Your task to perform on an android device: open app "Walmart Shopping & Grocery" (install if not already installed) and enter user name: "Hans@icloud.com" and password: "executing" Image 0: 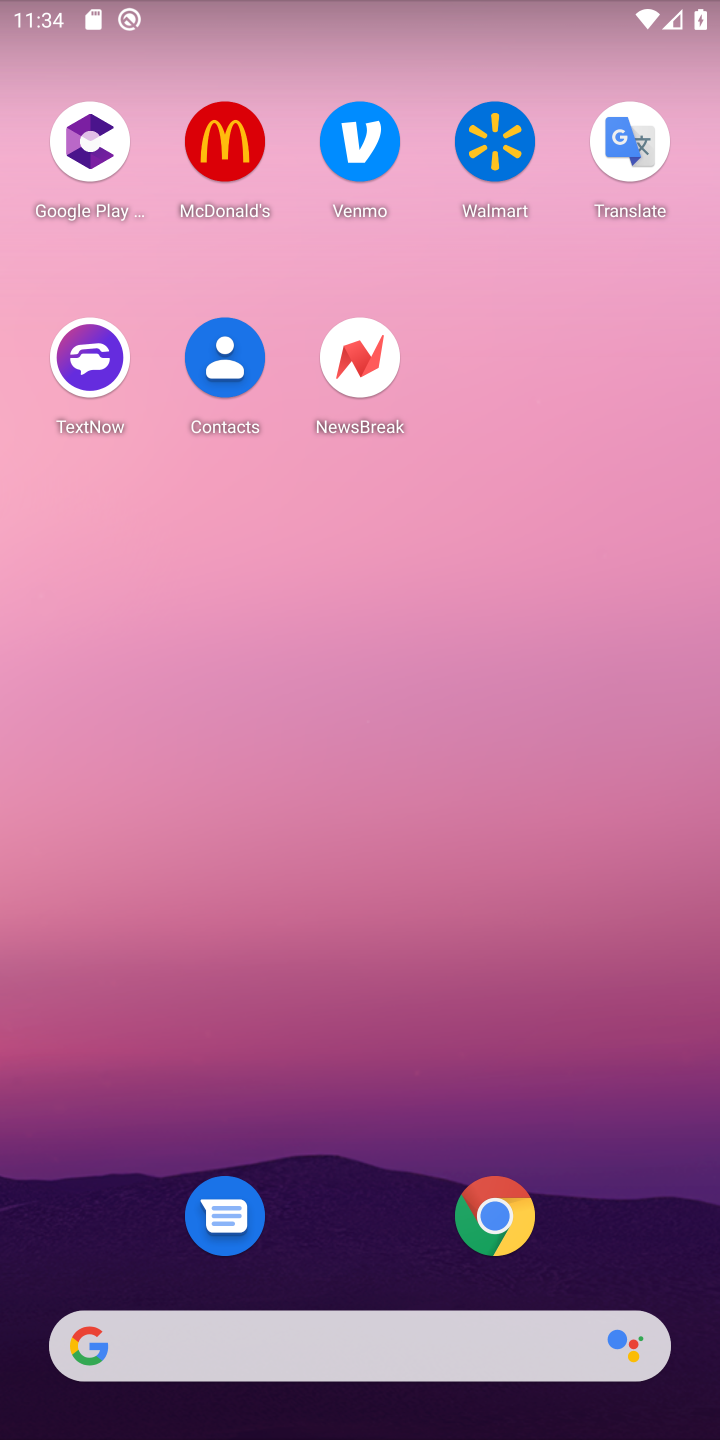
Step 0: drag from (424, 1081) to (393, 231)
Your task to perform on an android device: open app "Walmart Shopping & Grocery" (install if not already installed) and enter user name: "Hans@icloud.com" and password: "executing" Image 1: 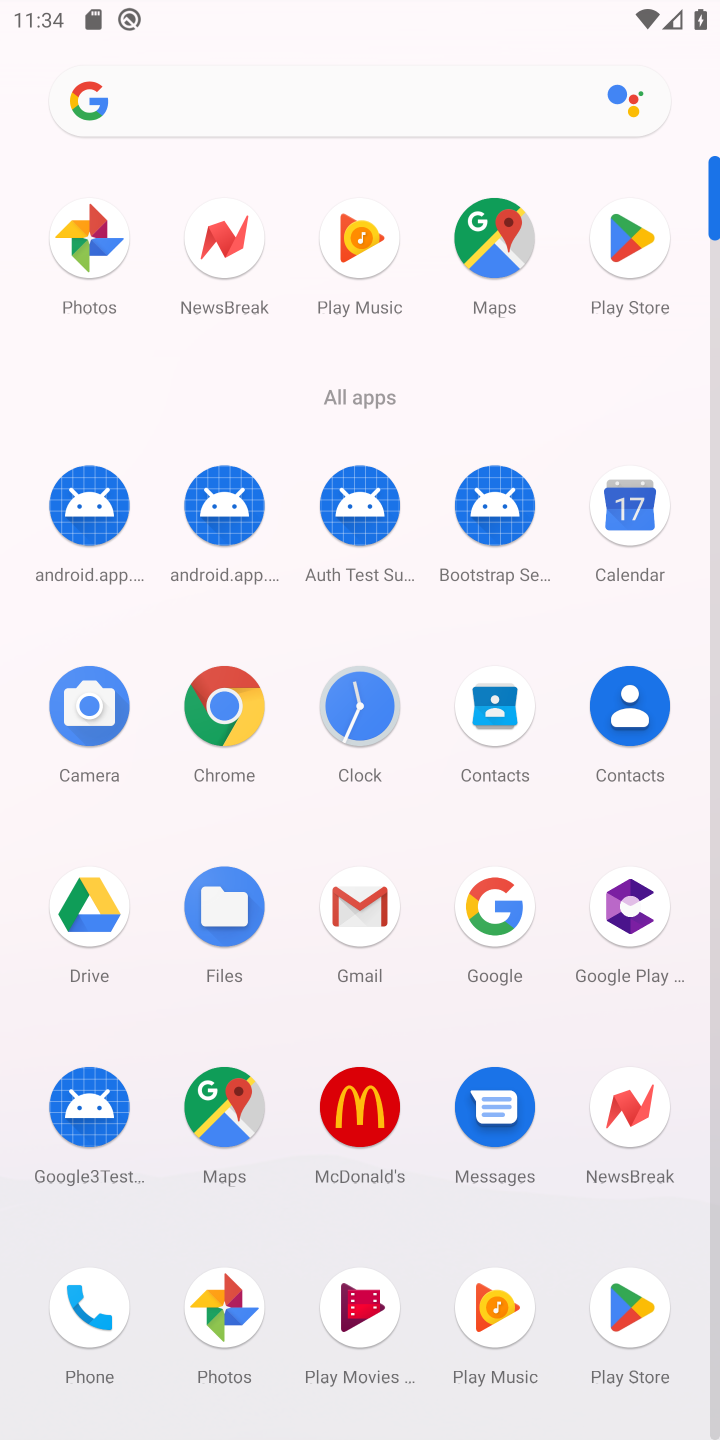
Step 1: click (621, 1324)
Your task to perform on an android device: open app "Walmart Shopping & Grocery" (install if not already installed) and enter user name: "Hans@icloud.com" and password: "executing" Image 2: 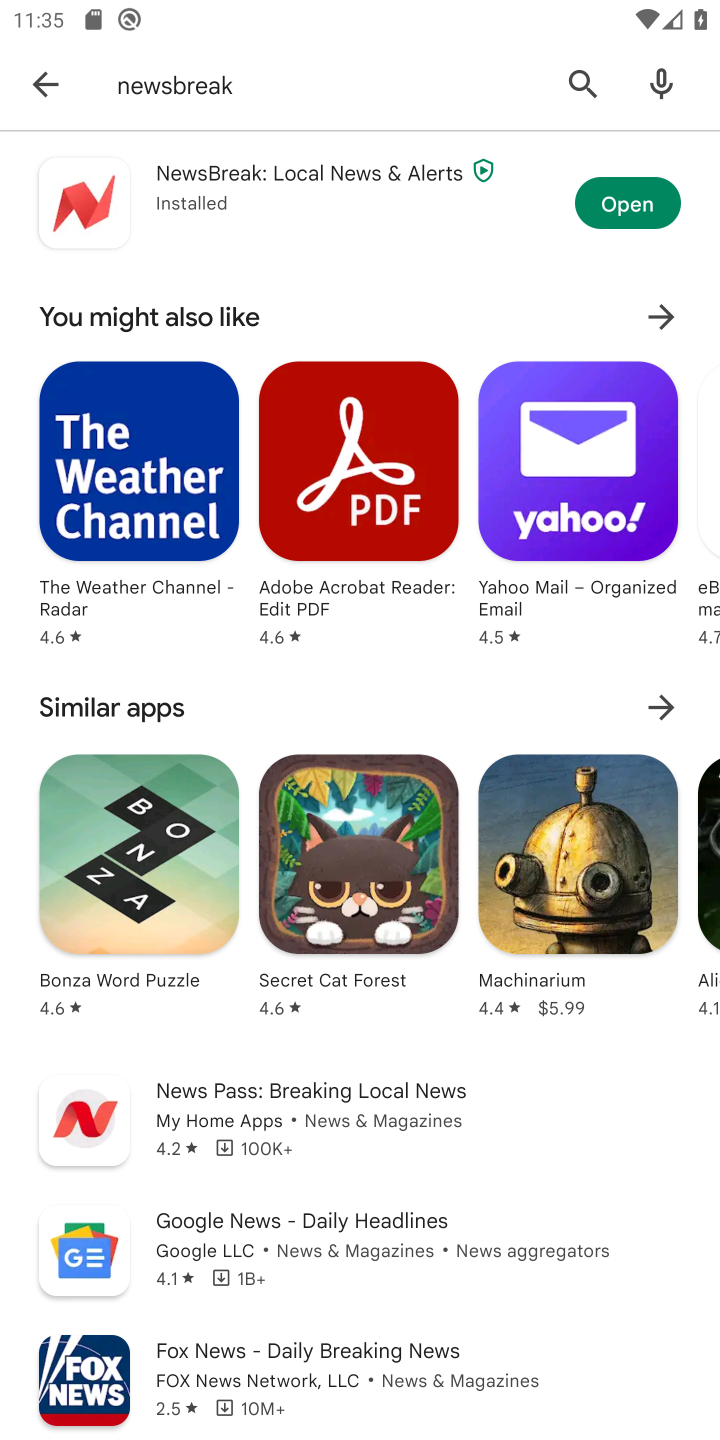
Step 2: click (603, 1158)
Your task to perform on an android device: open app "Walmart Shopping & Grocery" (install if not already installed) and enter user name: "Hans@icloud.com" and password: "executing" Image 3: 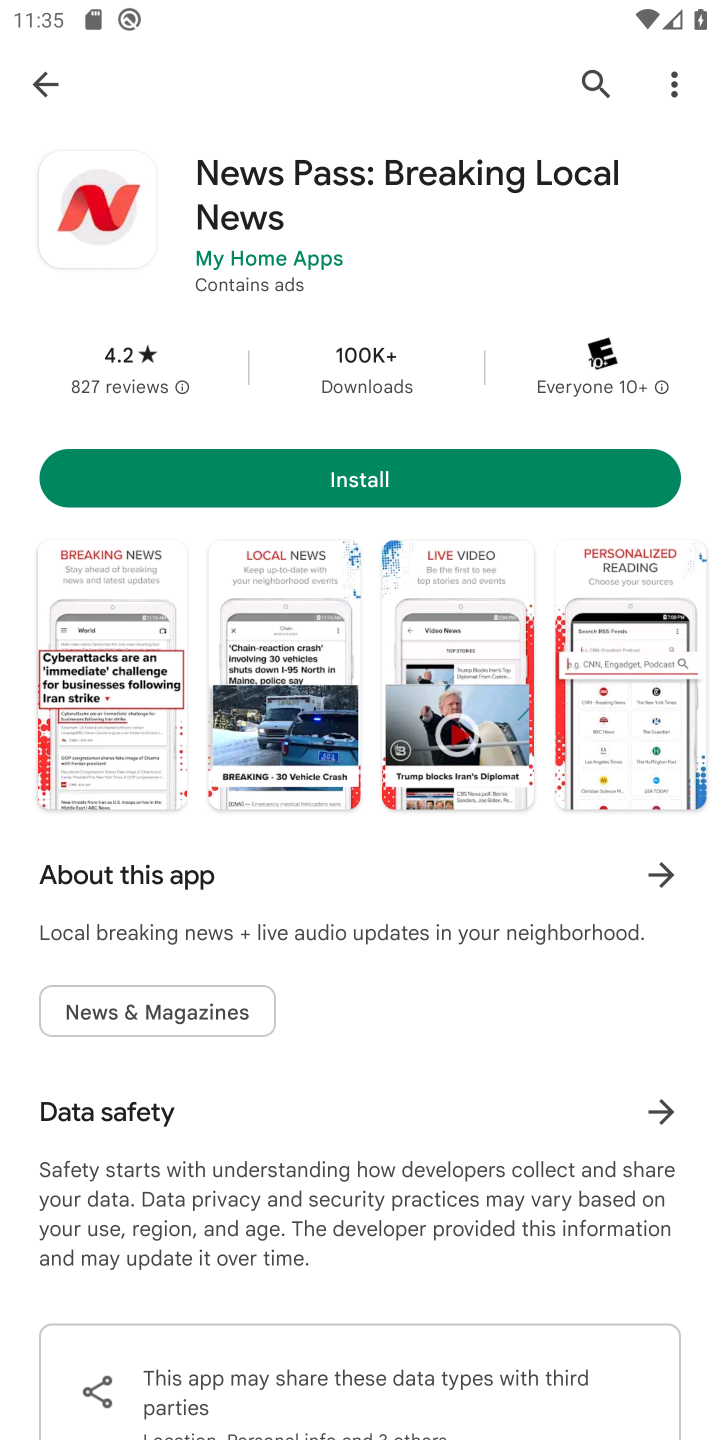
Step 3: click (597, 75)
Your task to perform on an android device: open app "Walmart Shopping & Grocery" (install if not already installed) and enter user name: "Hans@icloud.com" and password: "executing" Image 4: 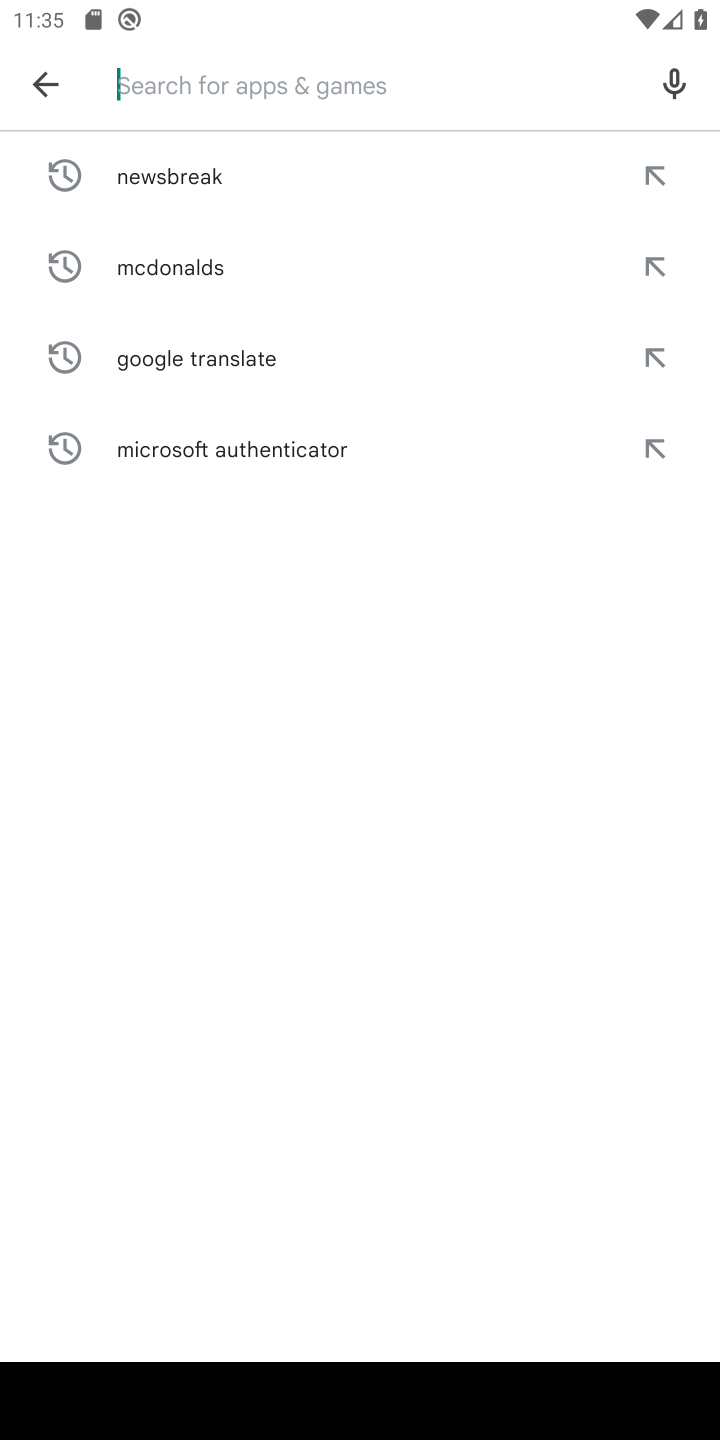
Step 4: type "walmart shopping & grocery"
Your task to perform on an android device: open app "Walmart Shopping & Grocery" (install if not already installed) and enter user name: "Hans@icloud.com" and password: "executing" Image 5: 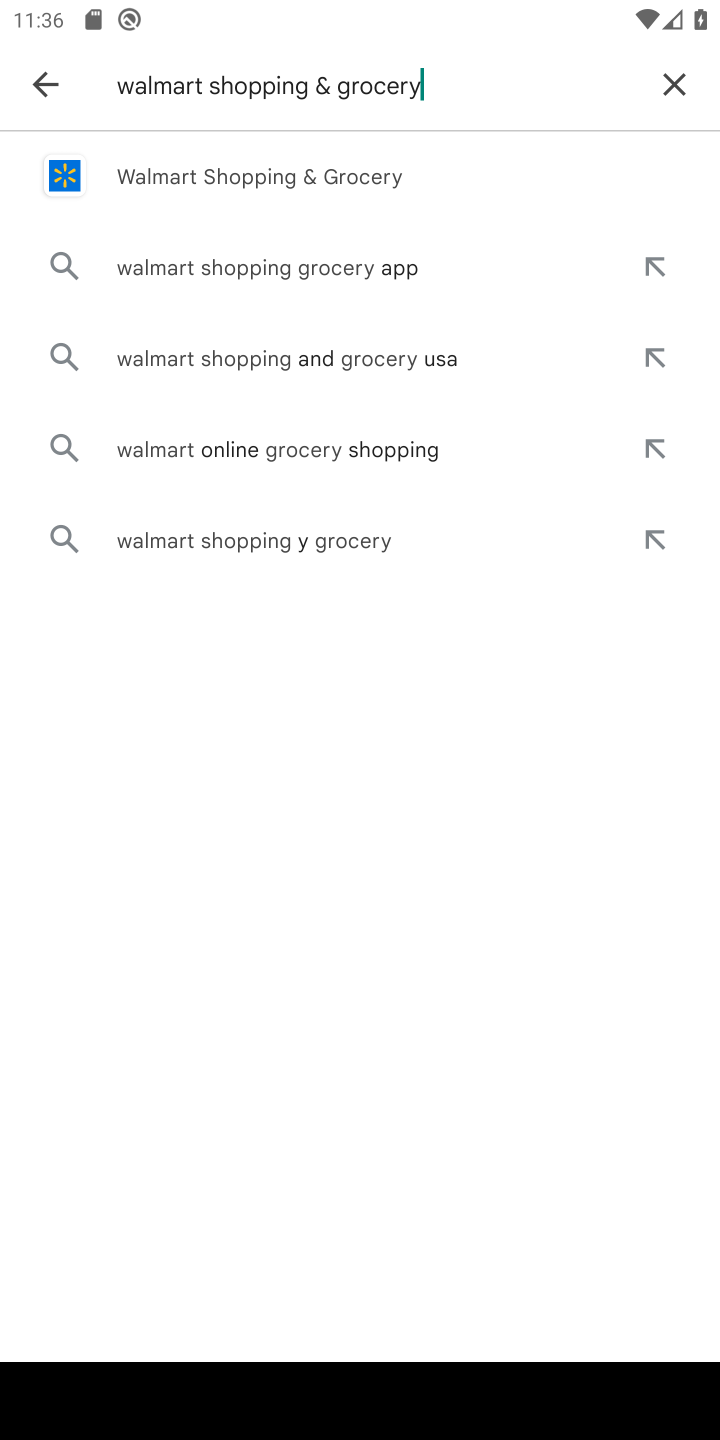
Step 5: click (361, 162)
Your task to perform on an android device: open app "Walmart Shopping & Grocery" (install if not already installed) and enter user name: "Hans@icloud.com" and password: "executing" Image 6: 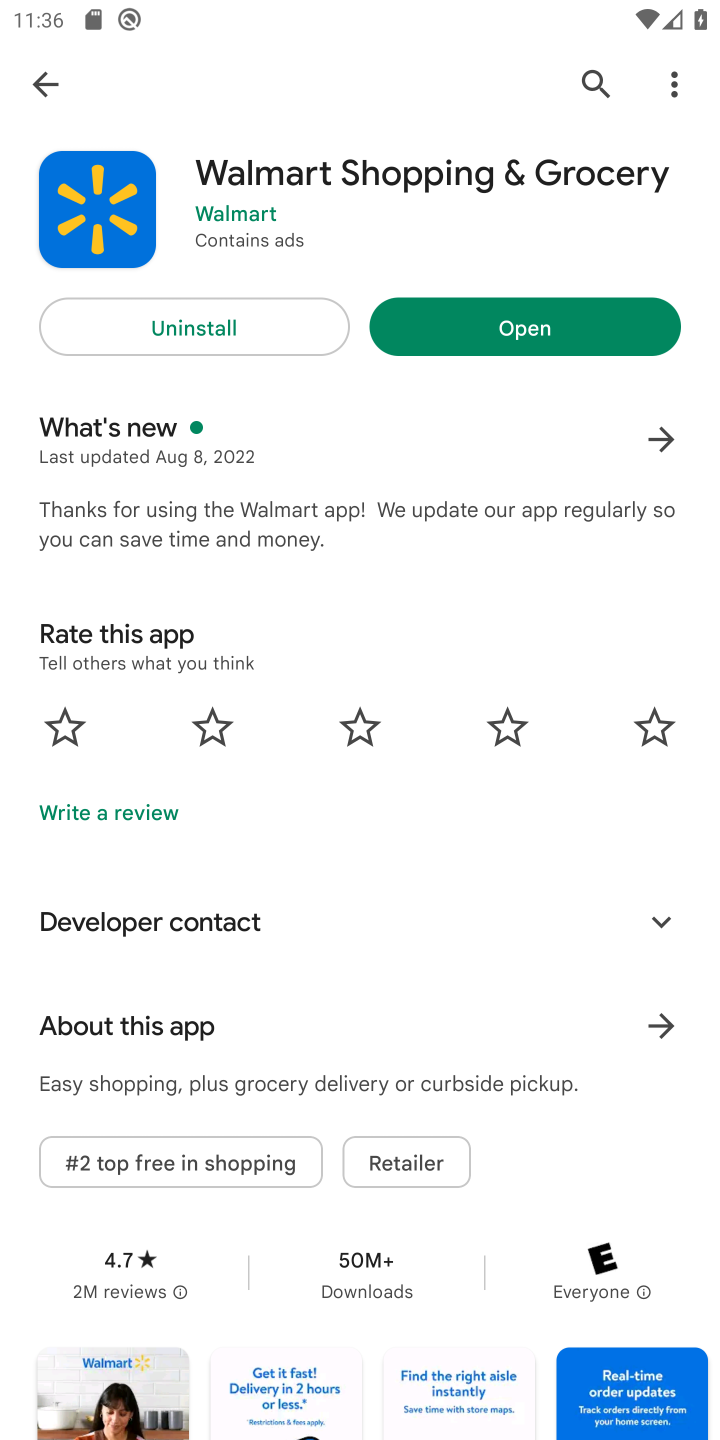
Step 6: click (536, 338)
Your task to perform on an android device: open app "Walmart Shopping & Grocery" (install if not already installed) and enter user name: "Hans@icloud.com" and password: "executing" Image 7: 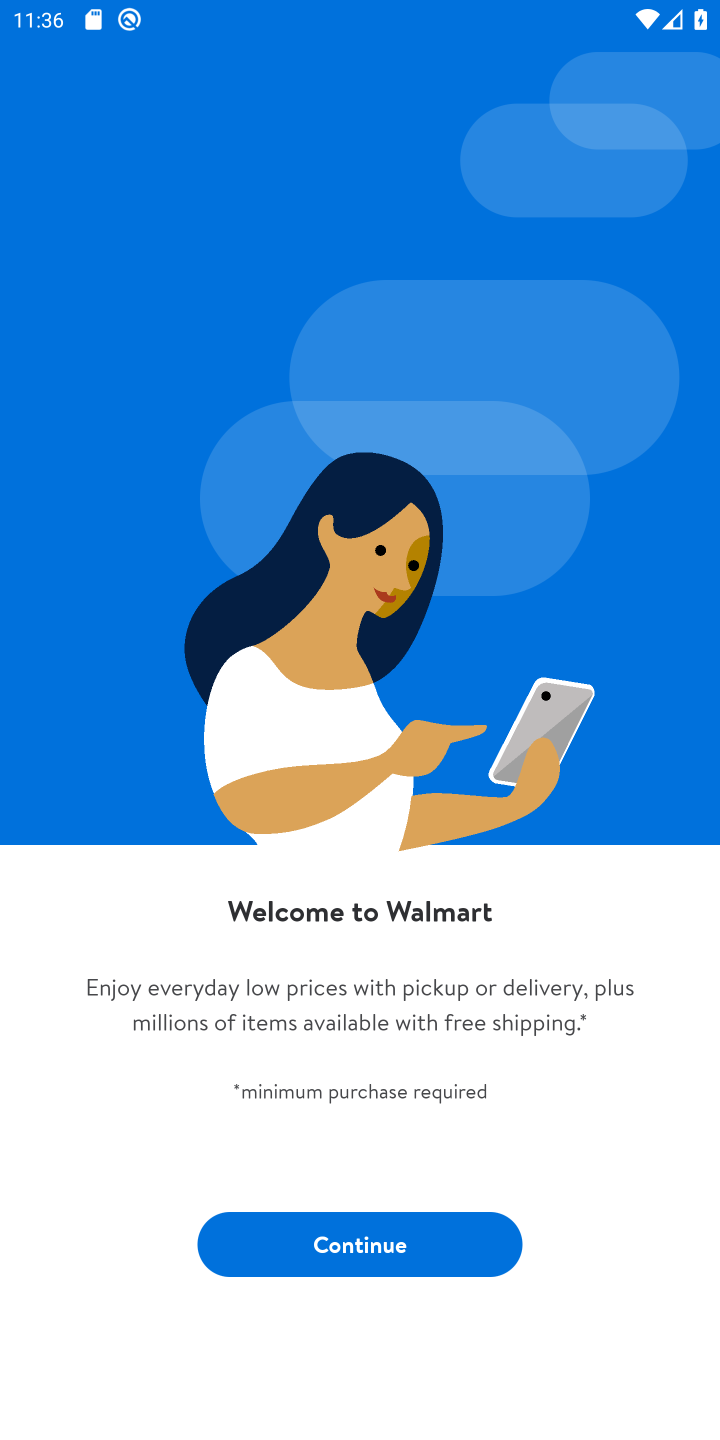
Step 7: click (322, 1254)
Your task to perform on an android device: open app "Walmart Shopping & Grocery" (install if not already installed) and enter user name: "Hans@icloud.com" and password: "executing" Image 8: 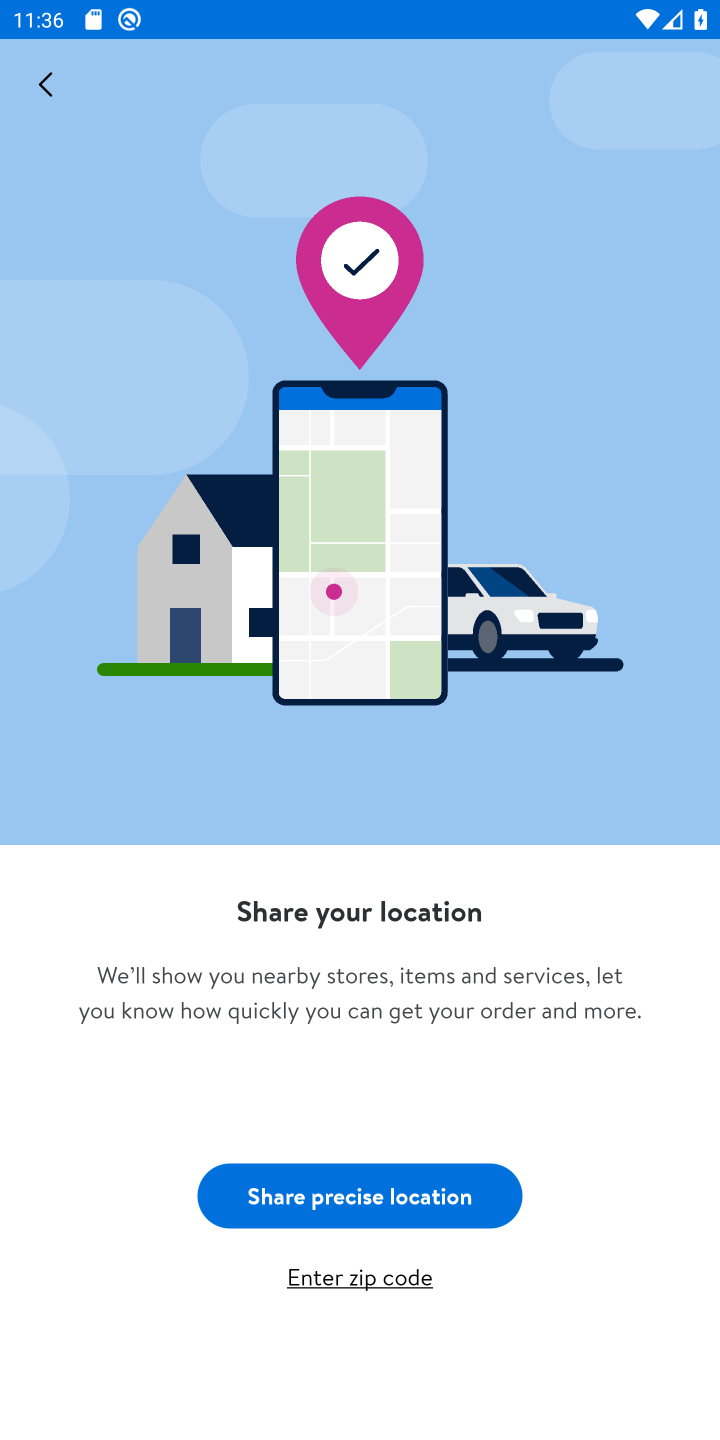
Step 8: click (377, 1207)
Your task to perform on an android device: open app "Walmart Shopping & Grocery" (install if not already installed) and enter user name: "Hans@icloud.com" and password: "executing" Image 9: 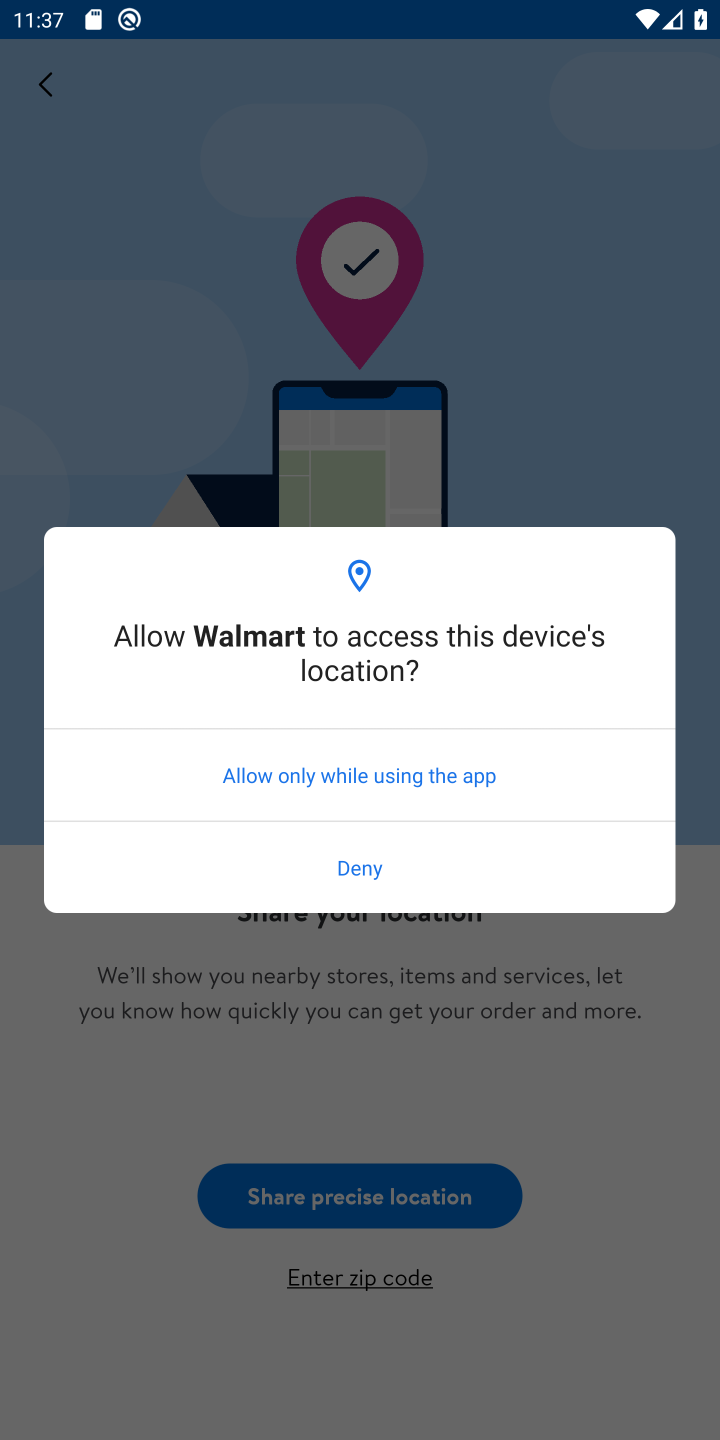
Step 9: click (363, 759)
Your task to perform on an android device: open app "Walmart Shopping & Grocery" (install if not already installed) and enter user name: "Hans@icloud.com" and password: "executing" Image 10: 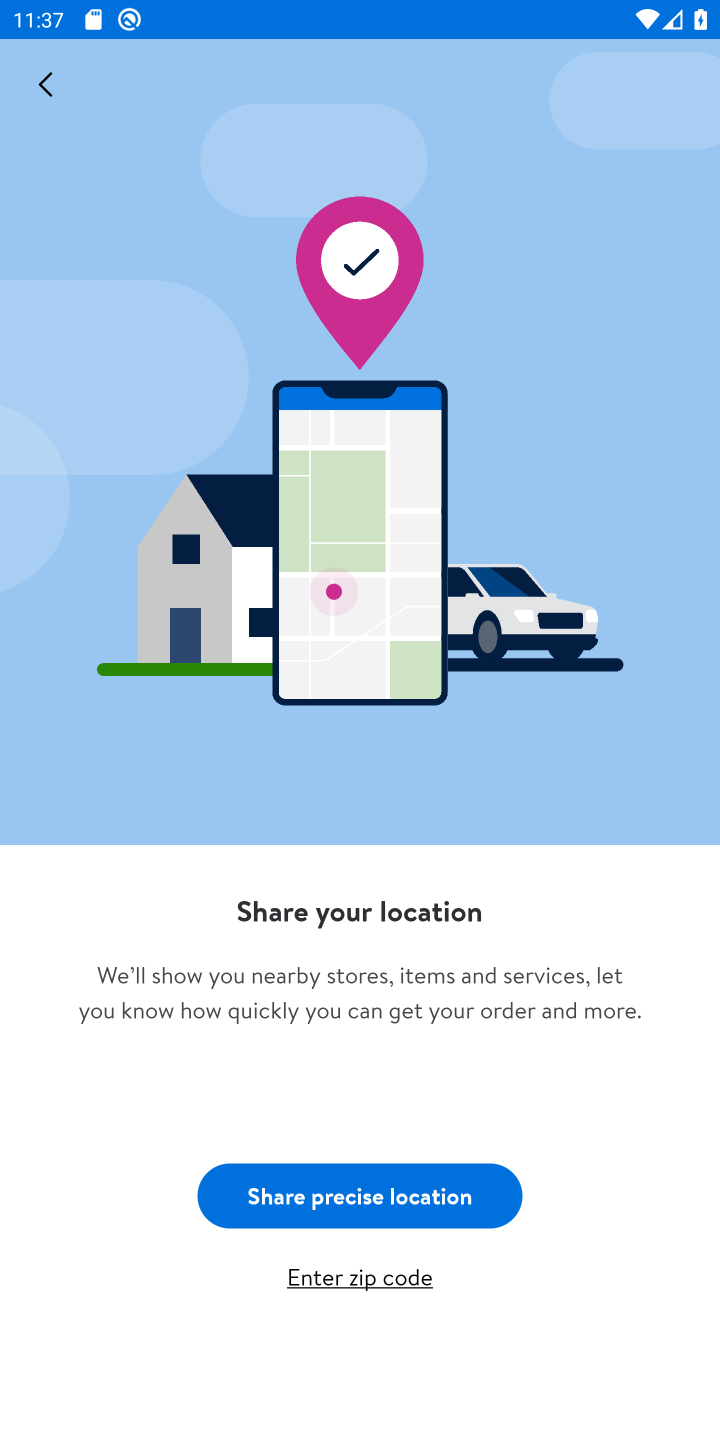
Step 10: click (446, 1188)
Your task to perform on an android device: open app "Walmart Shopping & Grocery" (install if not already installed) and enter user name: "Hans@icloud.com" and password: "executing" Image 11: 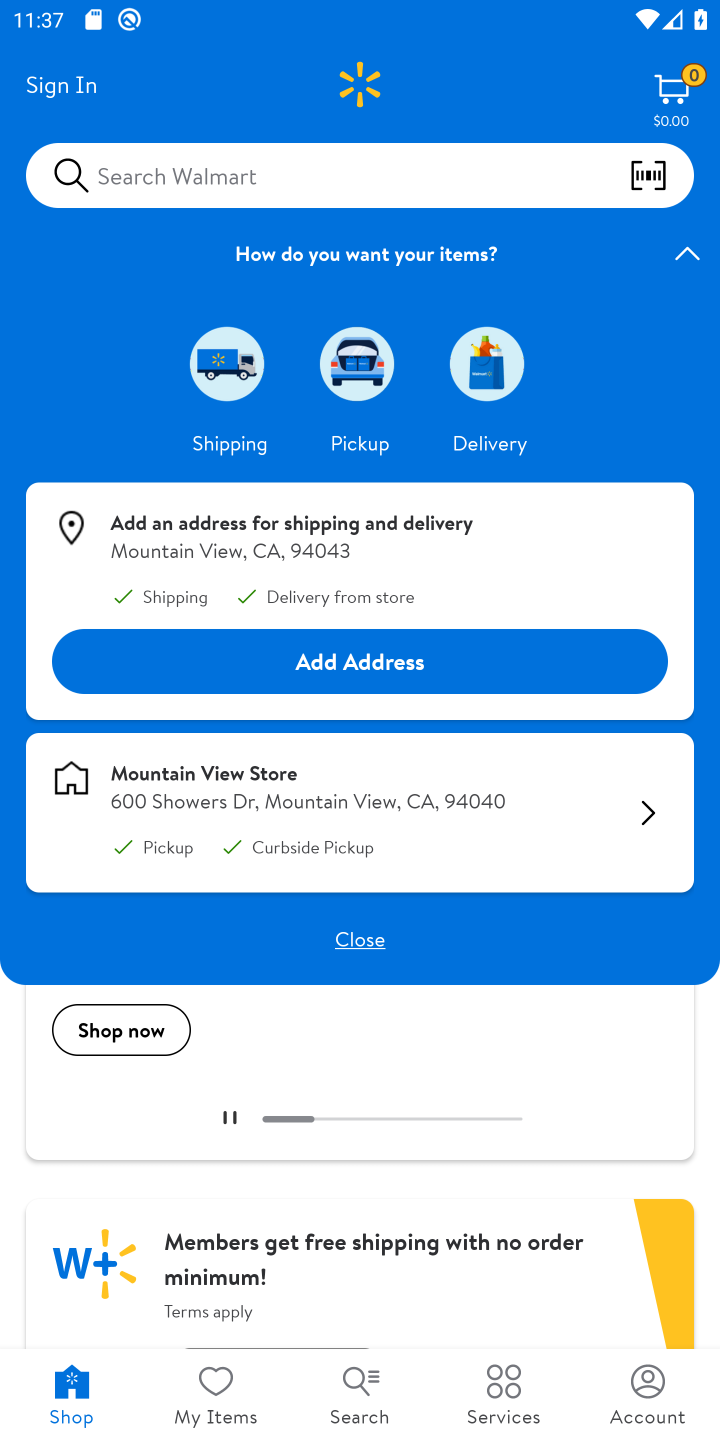
Step 11: click (84, 97)
Your task to perform on an android device: open app "Walmart Shopping & Grocery" (install if not already installed) and enter user name: "Hans@icloud.com" and password: "executing" Image 12: 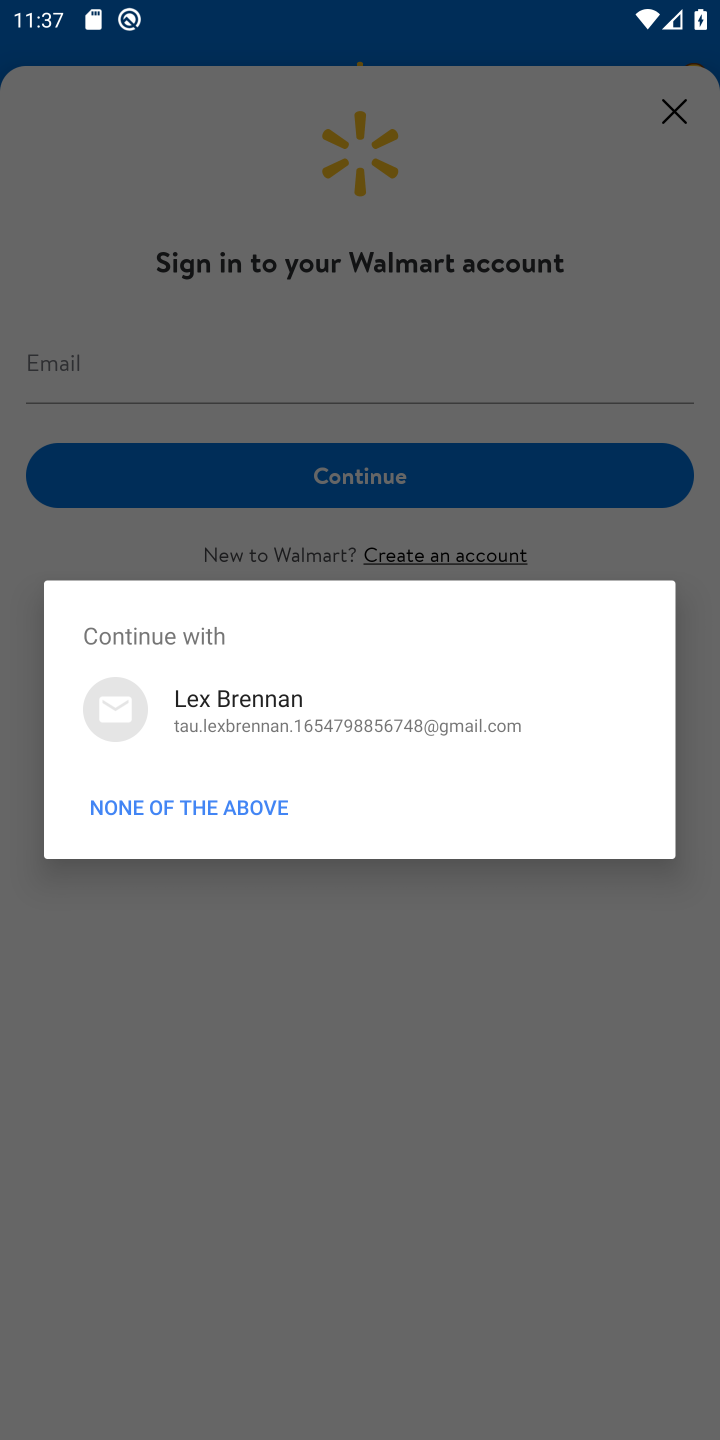
Step 12: click (424, 341)
Your task to perform on an android device: open app "Walmart Shopping & Grocery" (install if not already installed) and enter user name: "Hans@icloud.com" and password: "executing" Image 13: 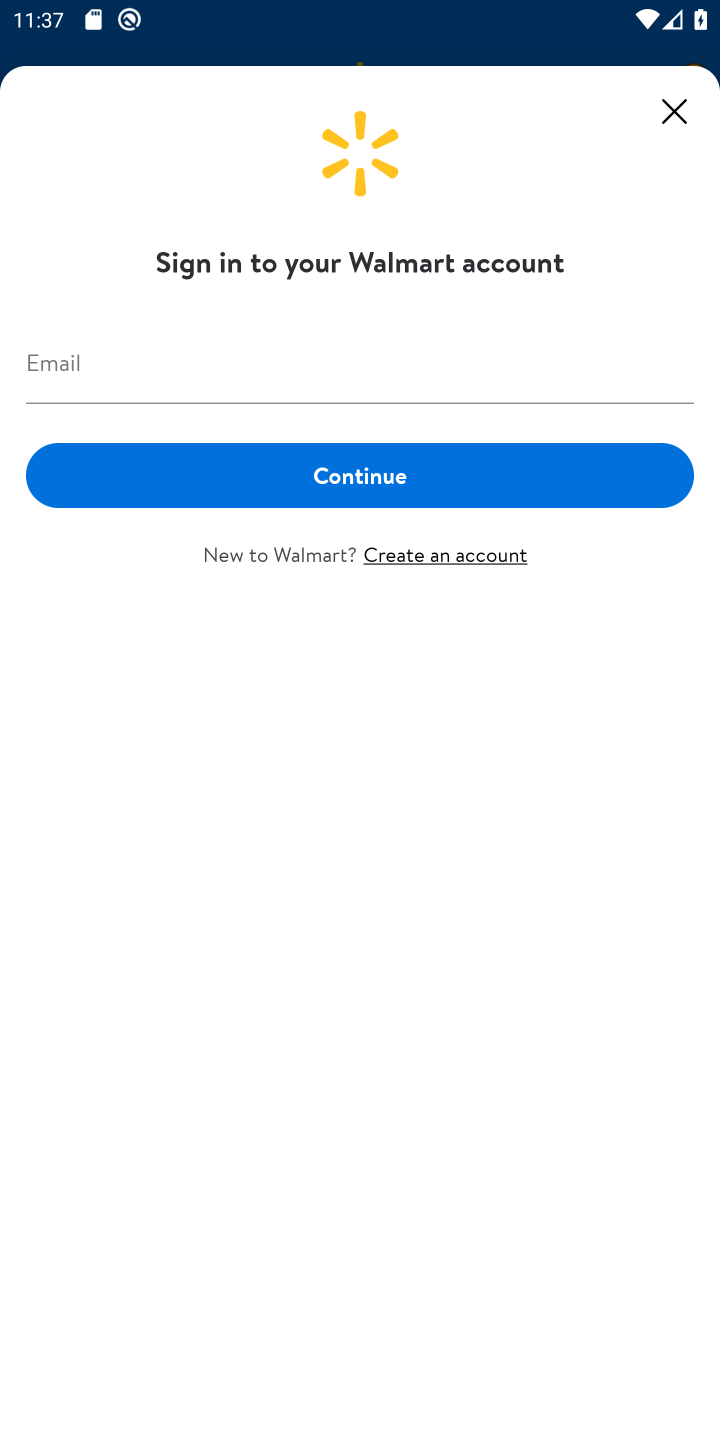
Step 13: click (413, 365)
Your task to perform on an android device: open app "Walmart Shopping & Grocery" (install if not already installed) and enter user name: "Hans@icloud.com" and password: "executing" Image 14: 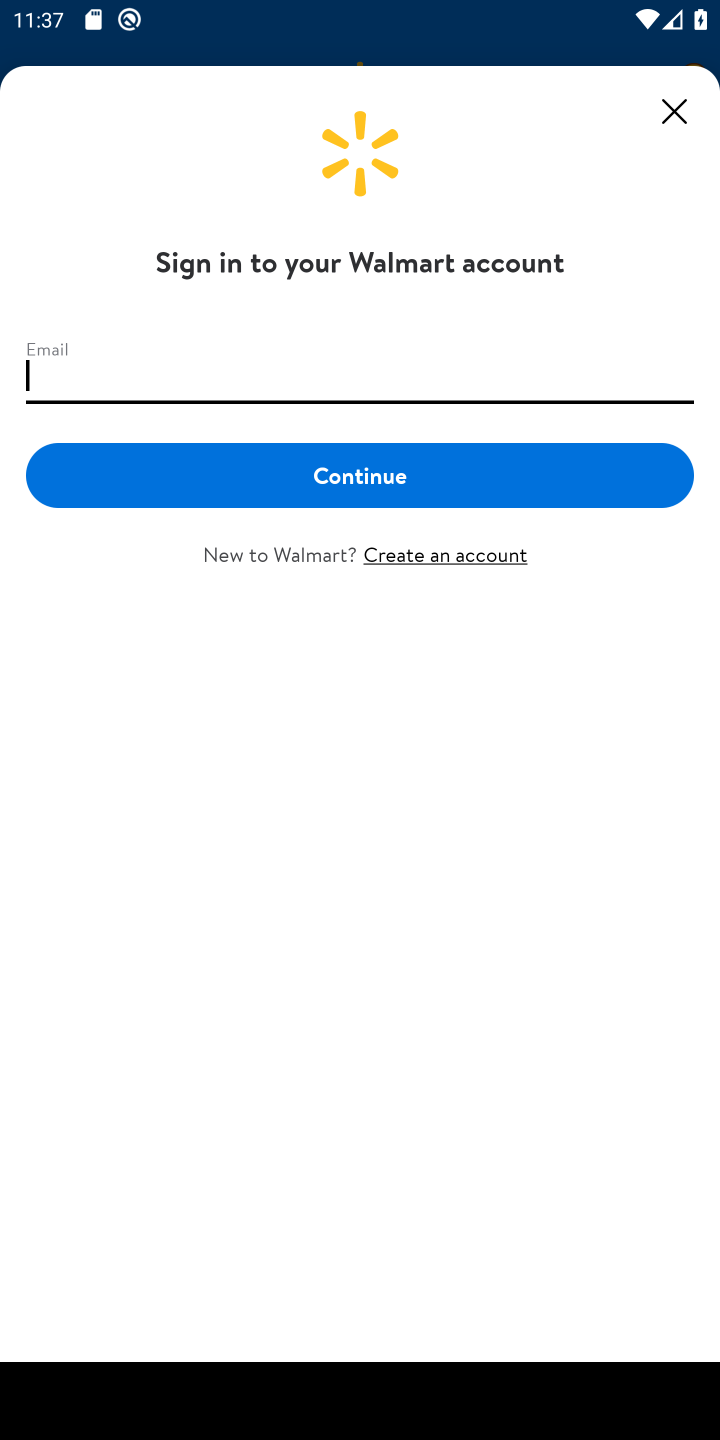
Step 14: type "hans@icloud.com"
Your task to perform on an android device: open app "Walmart Shopping & Grocery" (install if not already installed) and enter user name: "Hans@icloud.com" and password: "executing" Image 15: 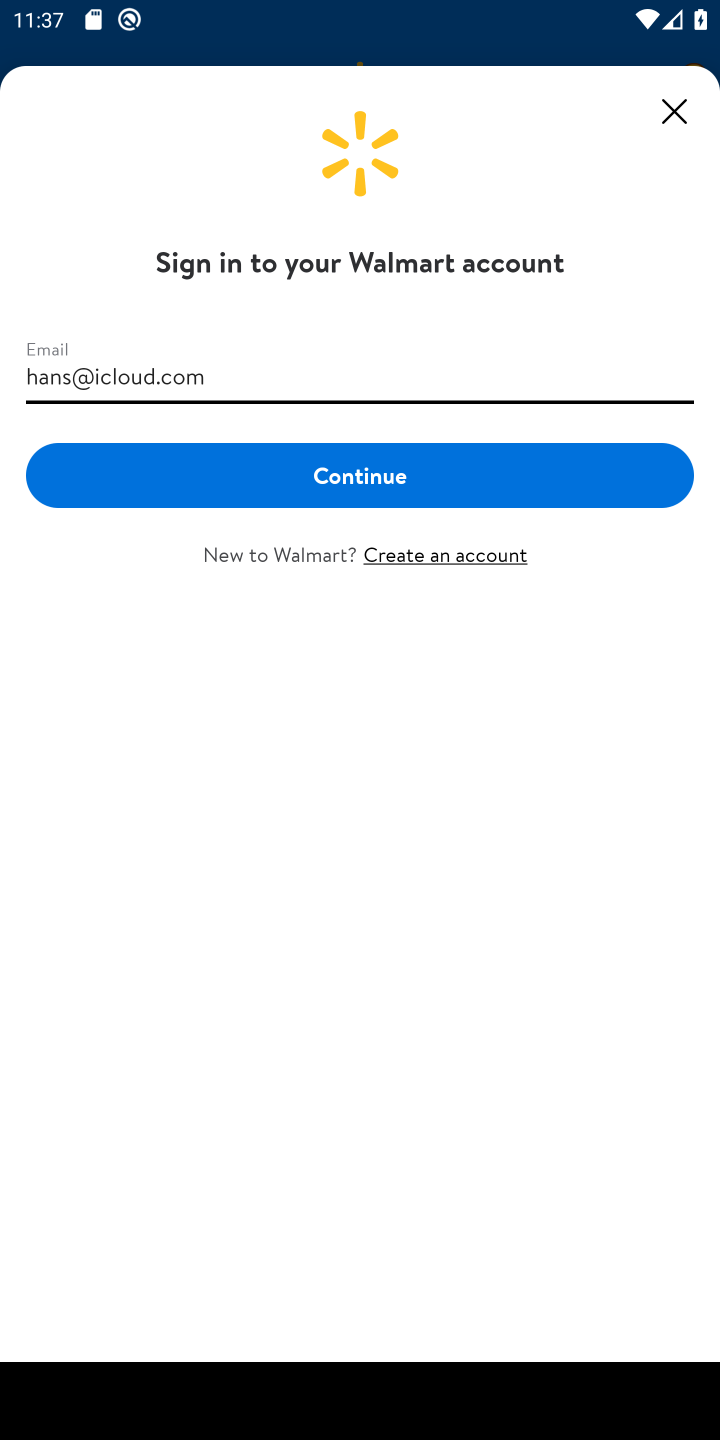
Step 15: click (353, 463)
Your task to perform on an android device: open app "Walmart Shopping & Grocery" (install if not already installed) and enter user name: "Hans@icloud.com" and password: "executing" Image 16: 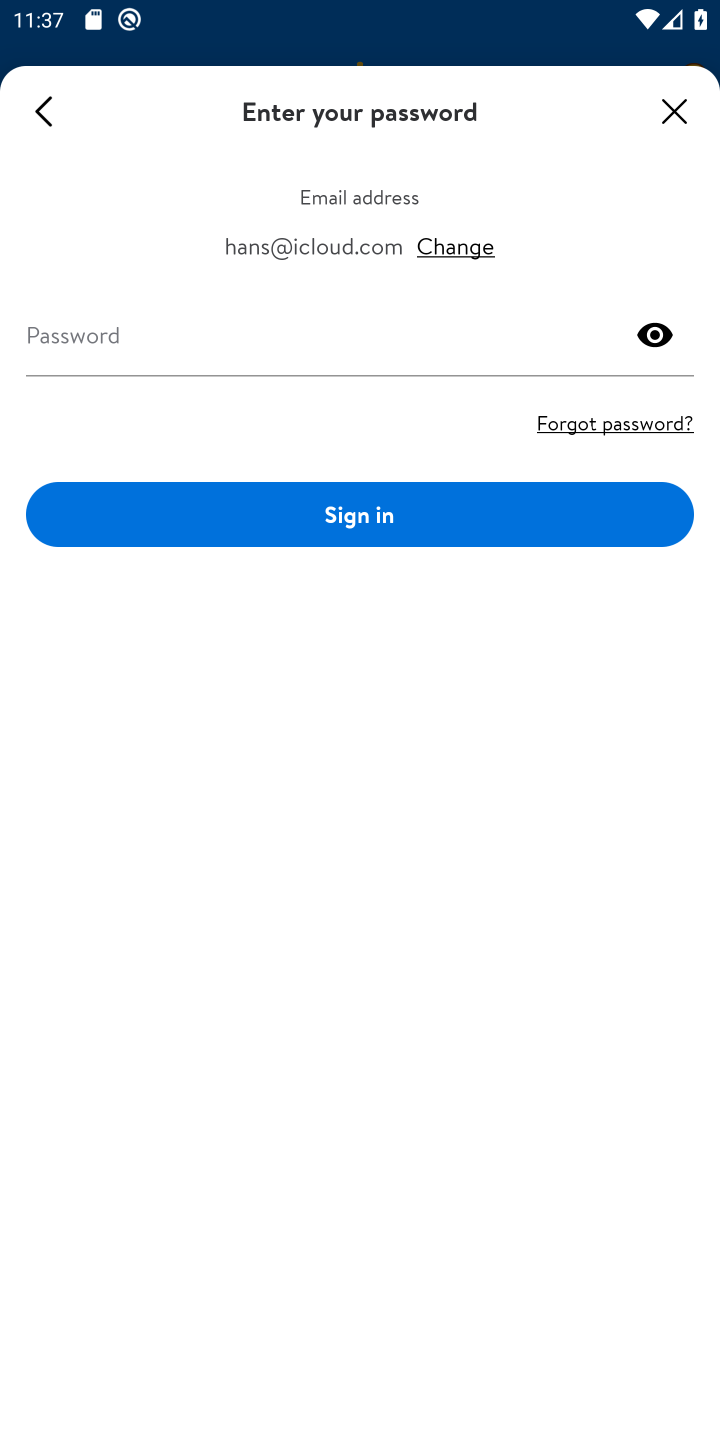
Step 16: click (389, 346)
Your task to perform on an android device: open app "Walmart Shopping & Grocery" (install if not already installed) and enter user name: "Hans@icloud.com" and password: "executing" Image 17: 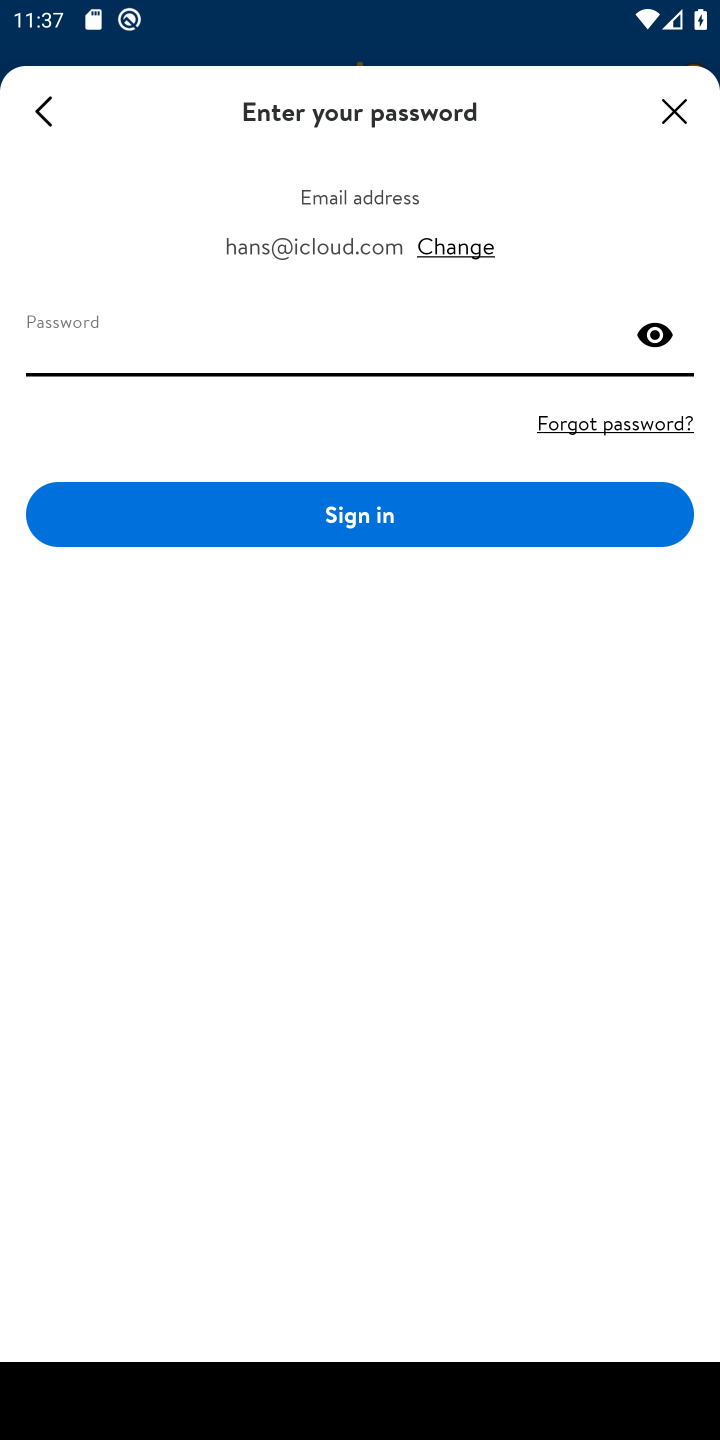
Step 17: type "executing"
Your task to perform on an android device: open app "Walmart Shopping & Grocery" (install if not already installed) and enter user name: "Hans@icloud.com" and password: "executing" Image 18: 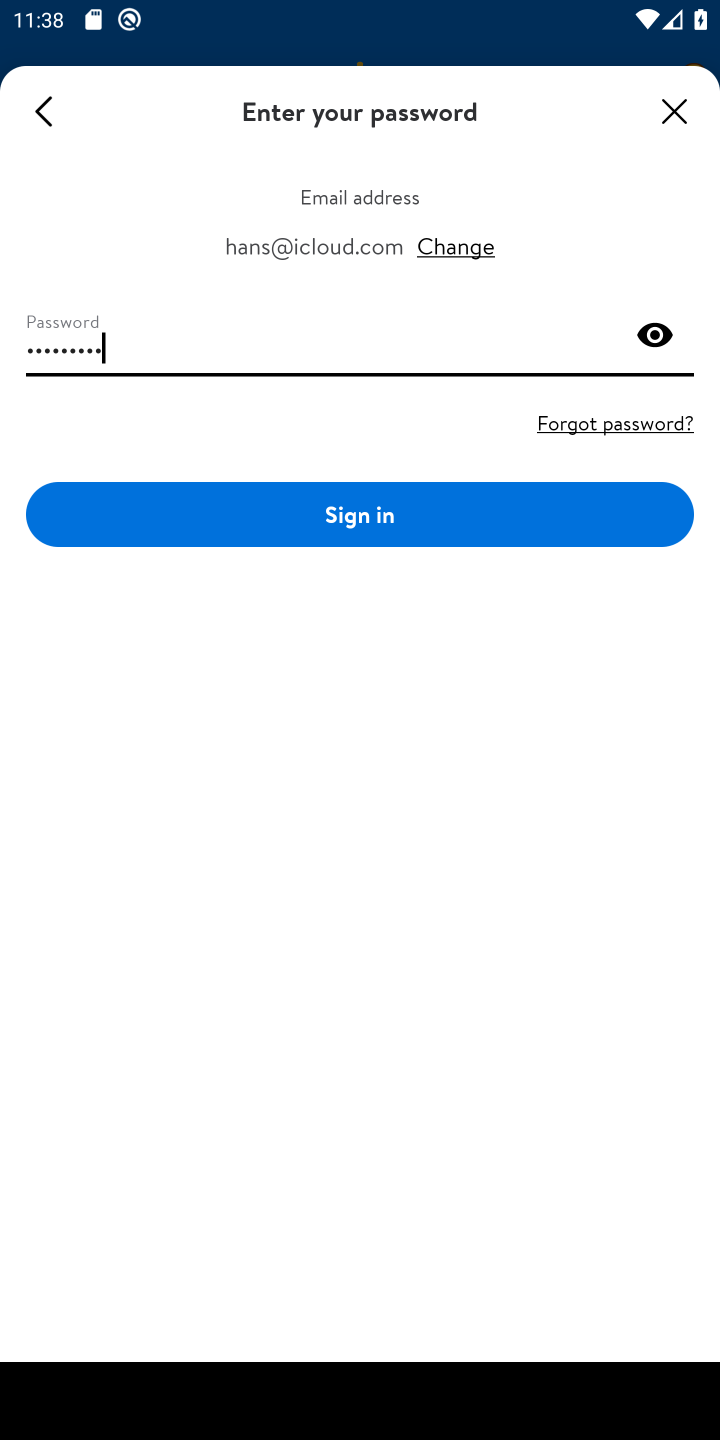
Step 18: click (576, 515)
Your task to perform on an android device: open app "Walmart Shopping & Grocery" (install if not already installed) and enter user name: "Hans@icloud.com" and password: "executing" Image 19: 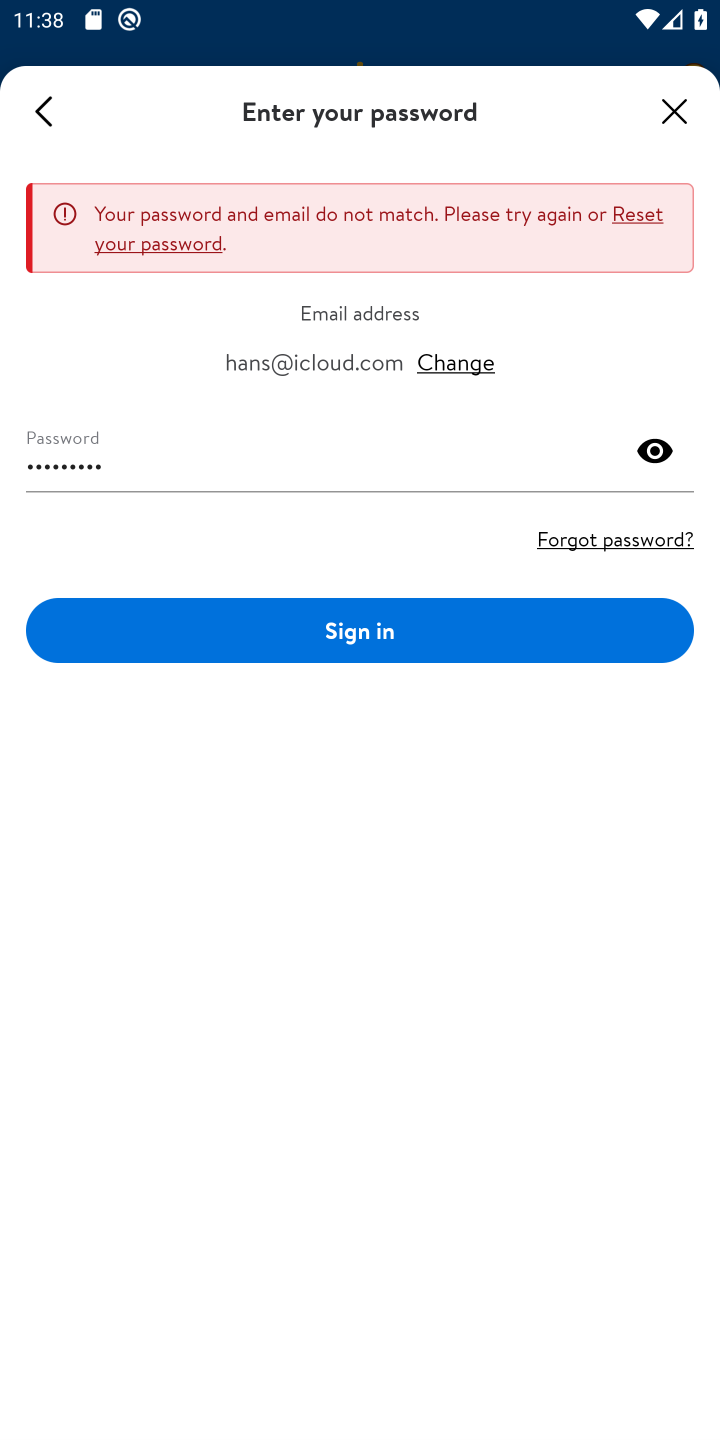
Step 19: task complete